Your task to perform on an android device: Open accessibility settings Image 0: 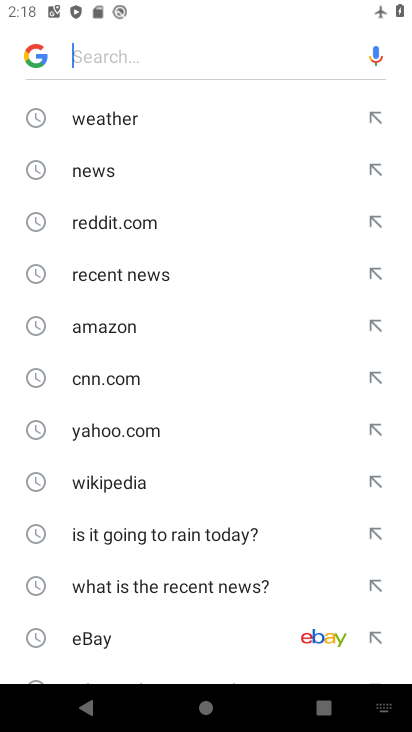
Step 0: press home button
Your task to perform on an android device: Open accessibility settings Image 1: 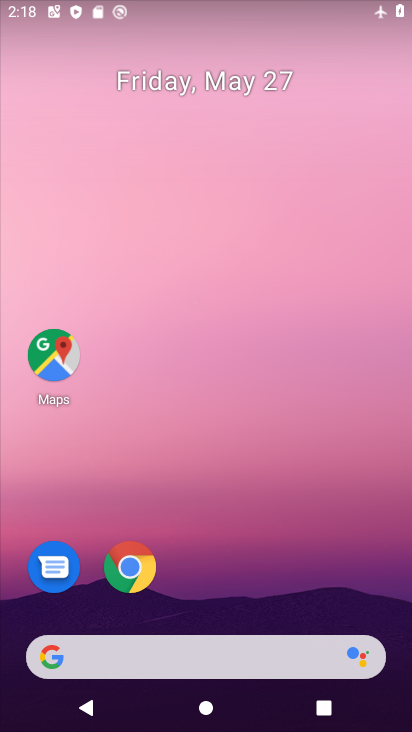
Step 1: drag from (213, 588) to (162, 87)
Your task to perform on an android device: Open accessibility settings Image 2: 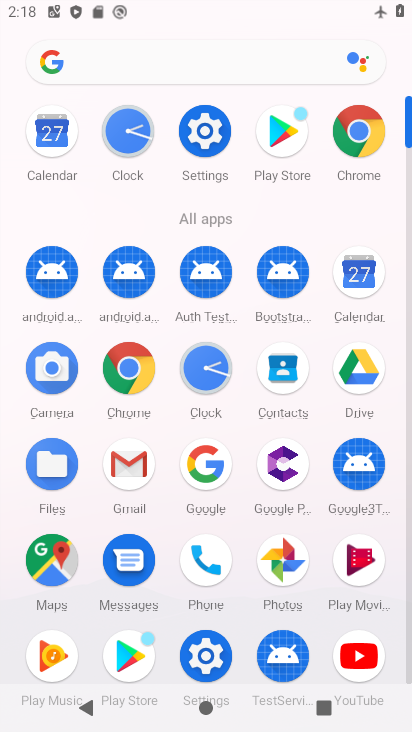
Step 2: click (201, 126)
Your task to perform on an android device: Open accessibility settings Image 3: 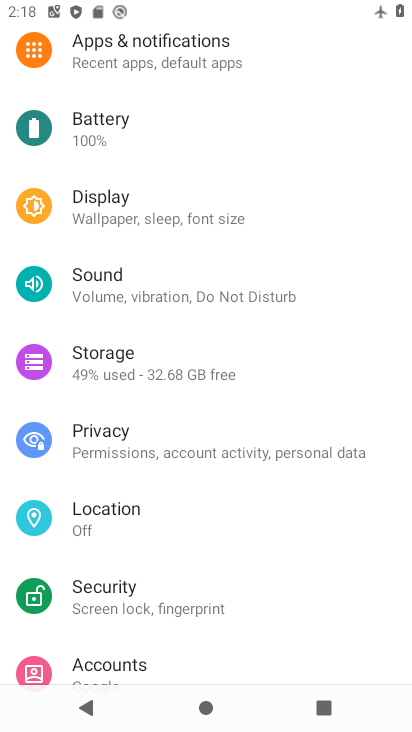
Step 3: drag from (220, 571) to (231, 247)
Your task to perform on an android device: Open accessibility settings Image 4: 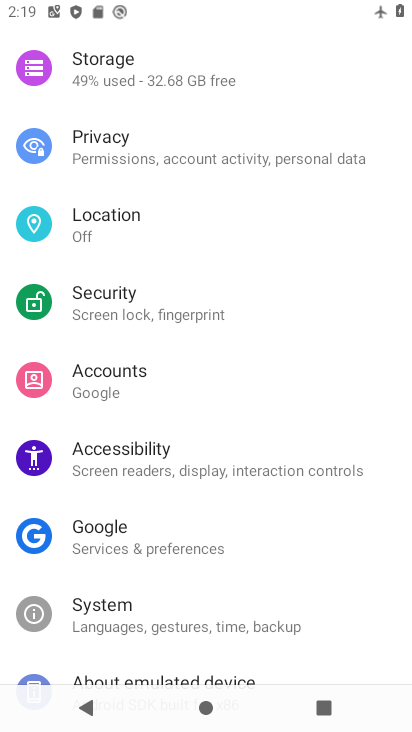
Step 4: click (82, 443)
Your task to perform on an android device: Open accessibility settings Image 5: 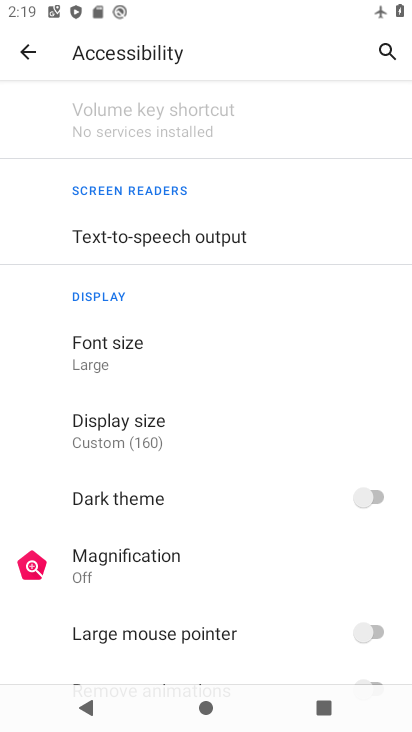
Step 5: task complete